Your task to perform on an android device: delete the emails in spam in the gmail app Image 0: 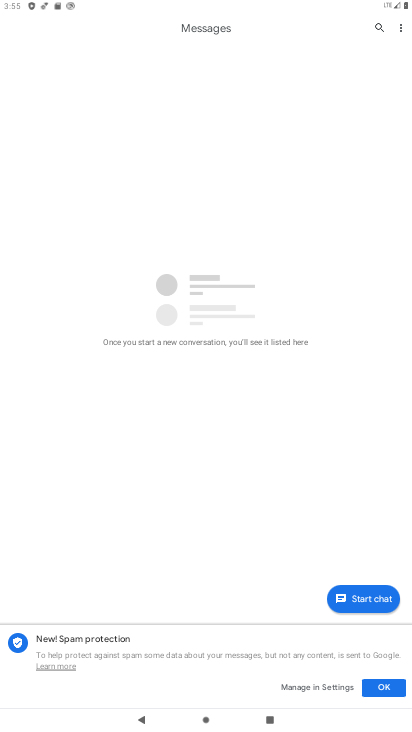
Step 0: press back button
Your task to perform on an android device: delete the emails in spam in the gmail app Image 1: 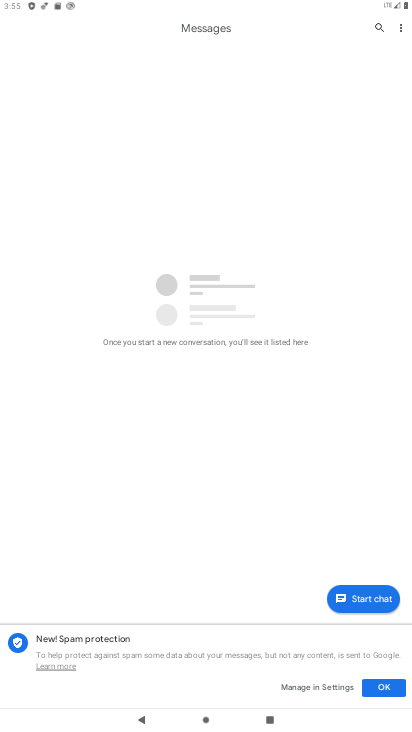
Step 1: press back button
Your task to perform on an android device: delete the emails in spam in the gmail app Image 2: 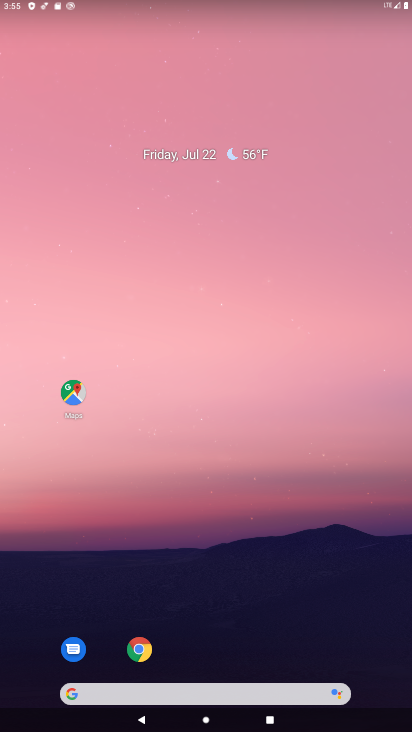
Step 2: drag from (261, 705) to (158, 59)
Your task to perform on an android device: delete the emails in spam in the gmail app Image 3: 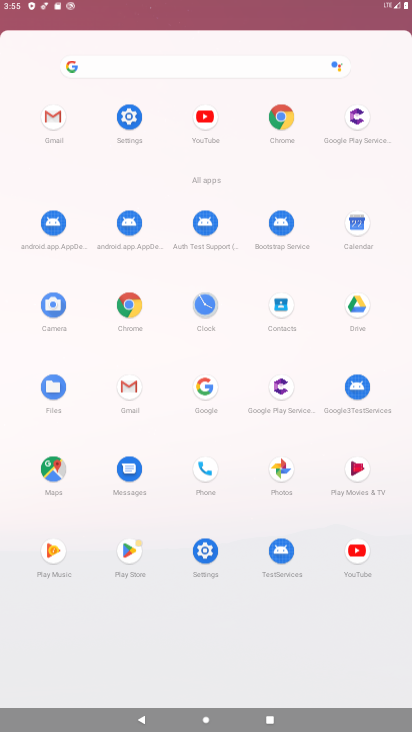
Step 3: drag from (251, 568) to (251, 128)
Your task to perform on an android device: delete the emails in spam in the gmail app Image 4: 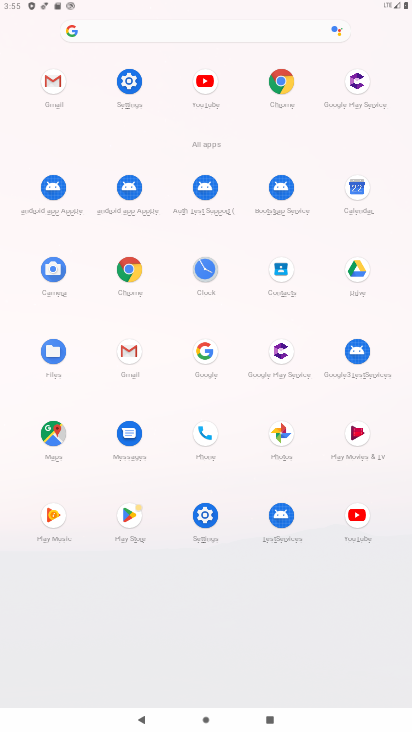
Step 4: drag from (229, 137) to (213, 37)
Your task to perform on an android device: delete the emails in spam in the gmail app Image 5: 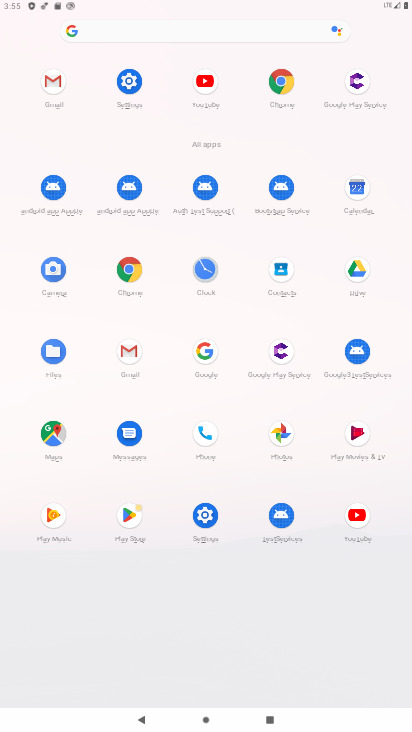
Step 5: click (129, 349)
Your task to perform on an android device: delete the emails in spam in the gmail app Image 6: 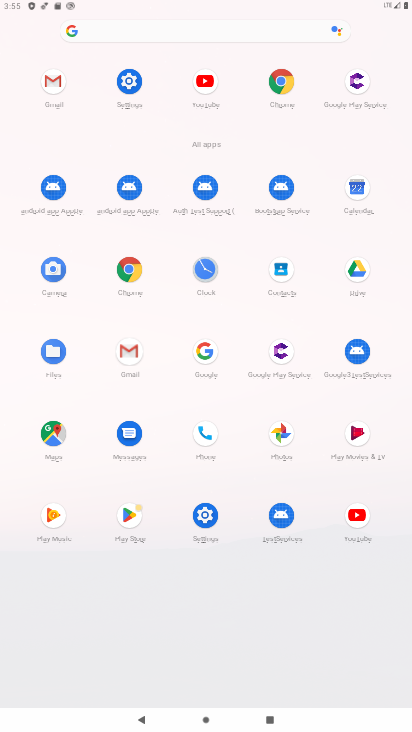
Step 6: click (129, 349)
Your task to perform on an android device: delete the emails in spam in the gmail app Image 7: 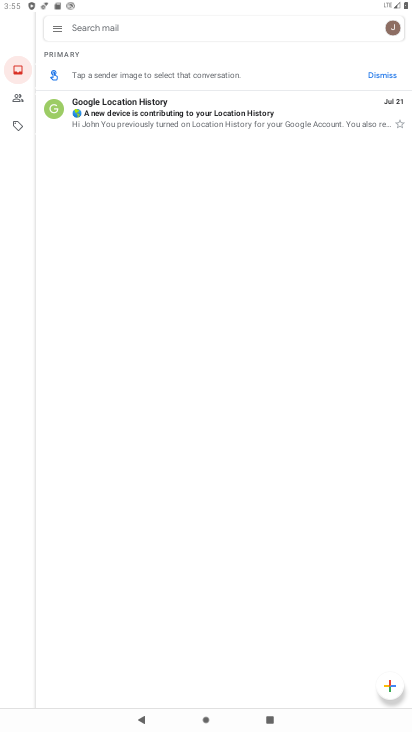
Step 7: click (218, 106)
Your task to perform on an android device: delete the emails in spam in the gmail app Image 8: 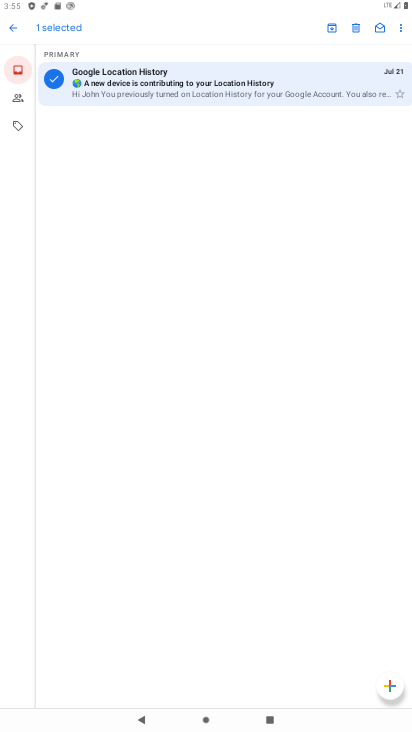
Step 8: click (353, 27)
Your task to perform on an android device: delete the emails in spam in the gmail app Image 9: 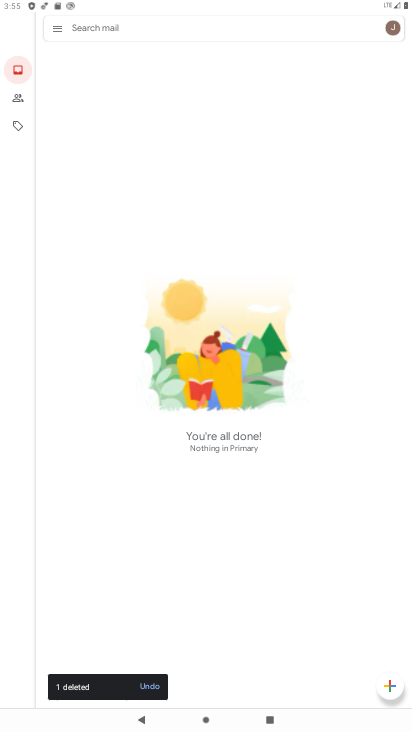
Step 9: press back button
Your task to perform on an android device: delete the emails in spam in the gmail app Image 10: 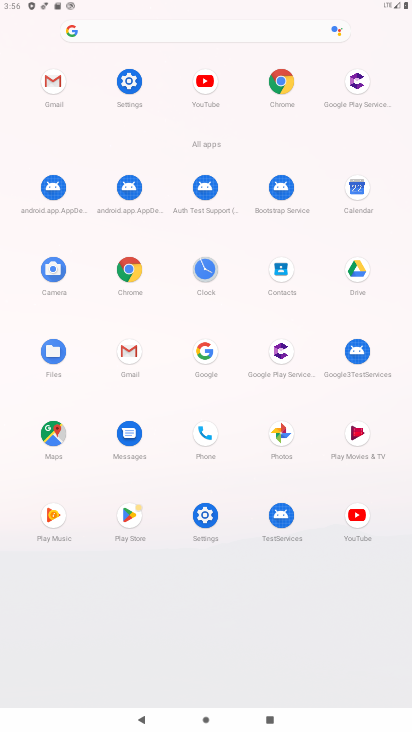
Step 10: click (128, 354)
Your task to perform on an android device: delete the emails in spam in the gmail app Image 11: 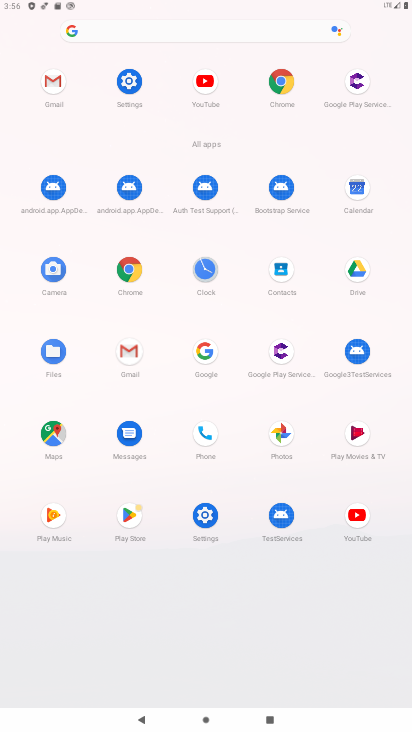
Step 11: click (129, 350)
Your task to perform on an android device: delete the emails in spam in the gmail app Image 12: 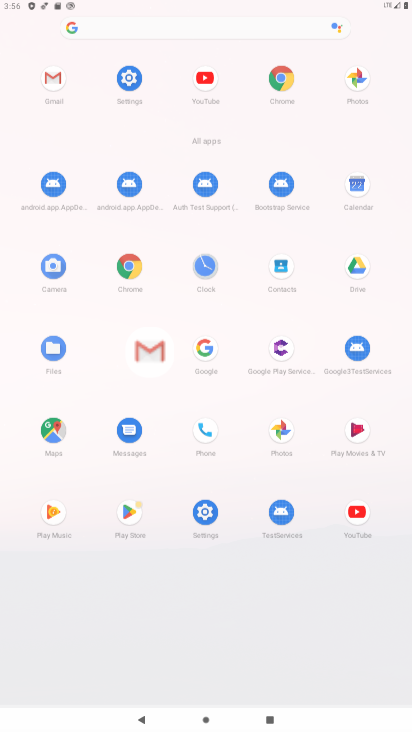
Step 12: click (129, 350)
Your task to perform on an android device: delete the emails in spam in the gmail app Image 13: 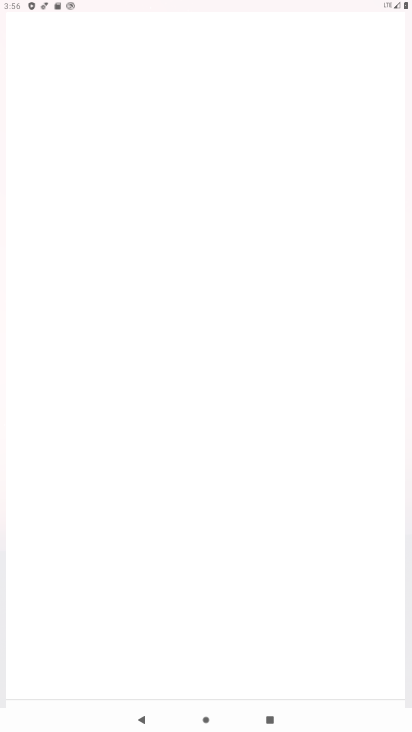
Step 13: click (128, 349)
Your task to perform on an android device: delete the emails in spam in the gmail app Image 14: 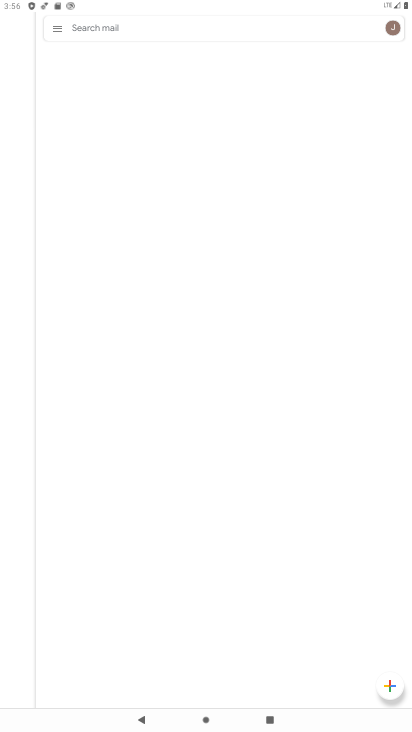
Step 14: click (128, 349)
Your task to perform on an android device: delete the emails in spam in the gmail app Image 15: 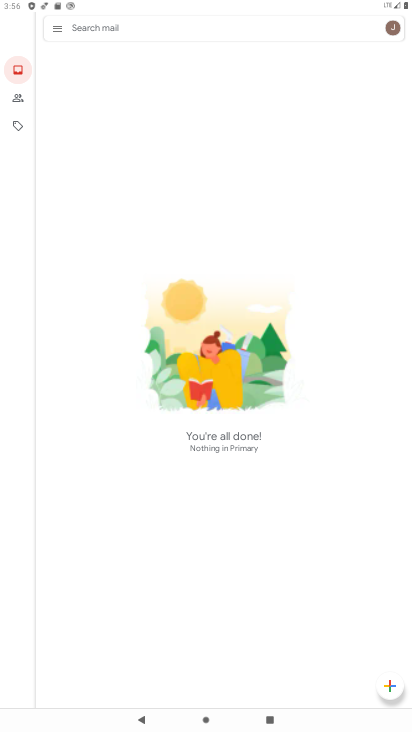
Step 15: click (55, 23)
Your task to perform on an android device: delete the emails in spam in the gmail app Image 16: 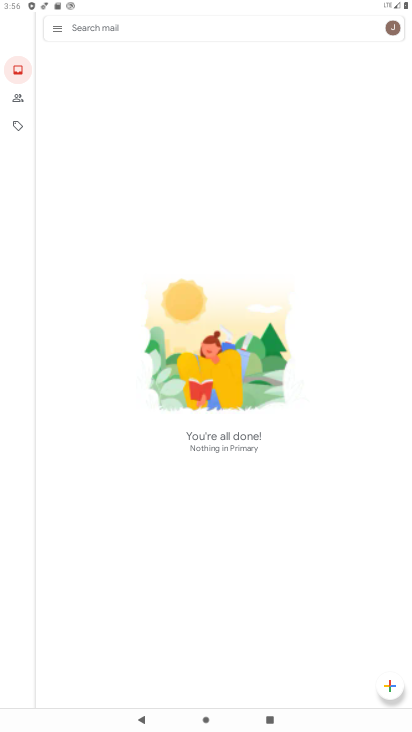
Step 16: click (55, 23)
Your task to perform on an android device: delete the emails in spam in the gmail app Image 17: 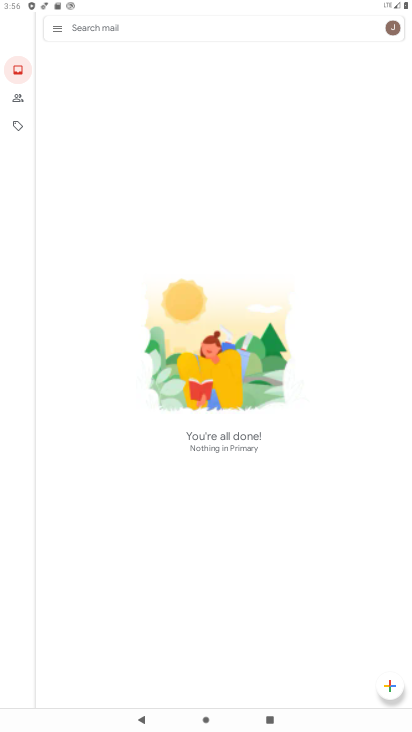
Step 17: click (61, 26)
Your task to perform on an android device: delete the emails in spam in the gmail app Image 18: 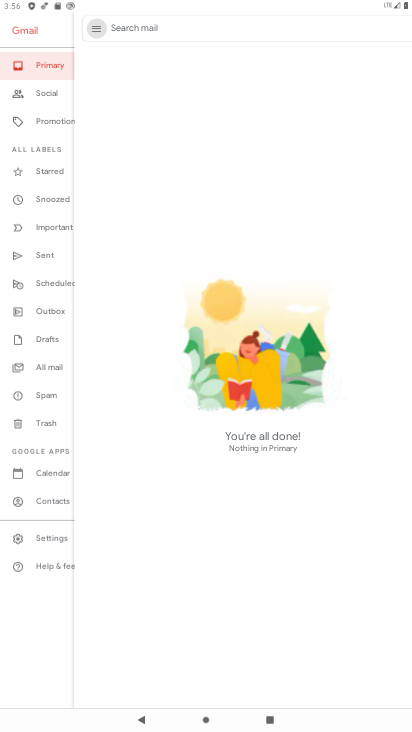
Step 18: click (61, 26)
Your task to perform on an android device: delete the emails in spam in the gmail app Image 19: 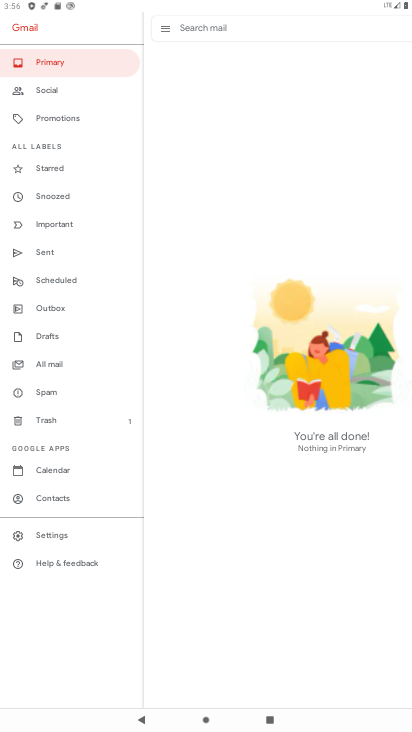
Step 19: click (47, 385)
Your task to perform on an android device: delete the emails in spam in the gmail app Image 20: 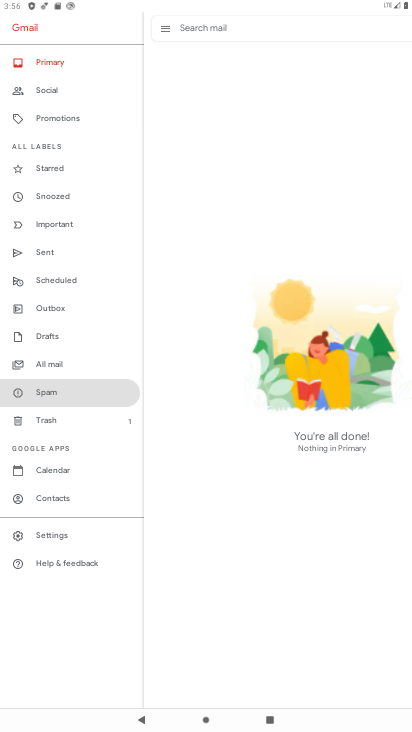
Step 20: click (46, 385)
Your task to perform on an android device: delete the emails in spam in the gmail app Image 21: 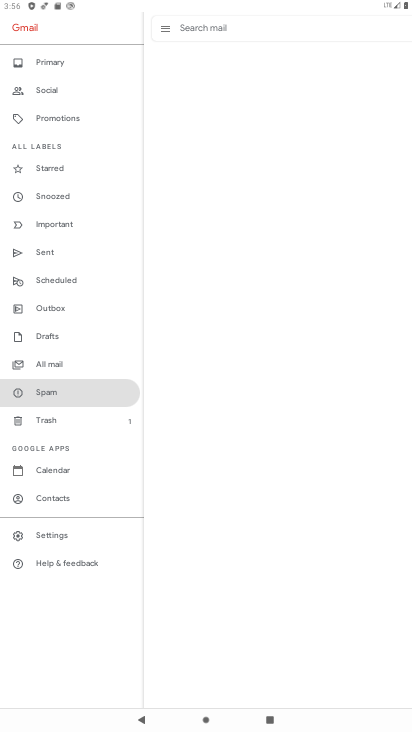
Step 21: click (48, 386)
Your task to perform on an android device: delete the emails in spam in the gmail app Image 22: 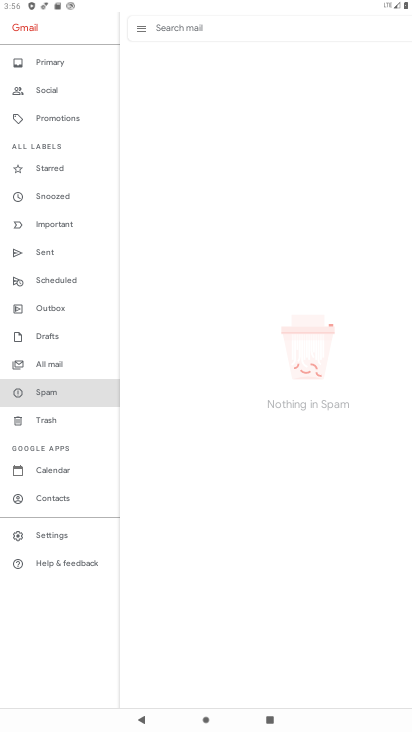
Step 22: click (57, 379)
Your task to perform on an android device: delete the emails in spam in the gmail app Image 23: 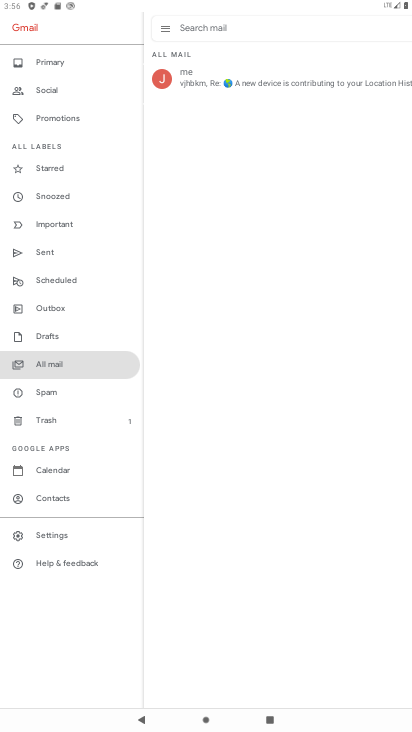
Step 23: task complete